Your task to perform on an android device: clear all cookies in the chrome app Image 0: 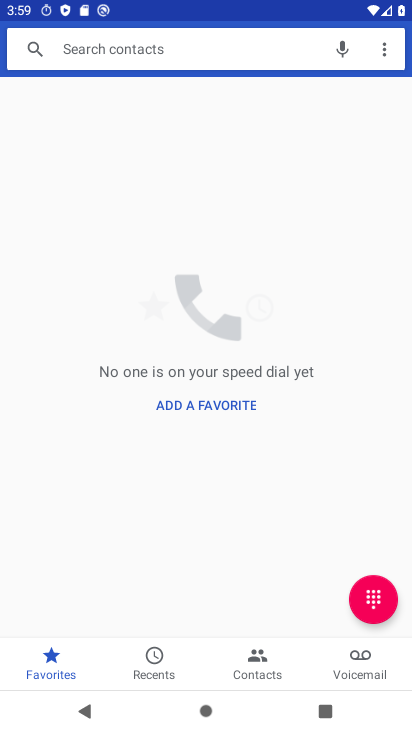
Step 0: press home button
Your task to perform on an android device: clear all cookies in the chrome app Image 1: 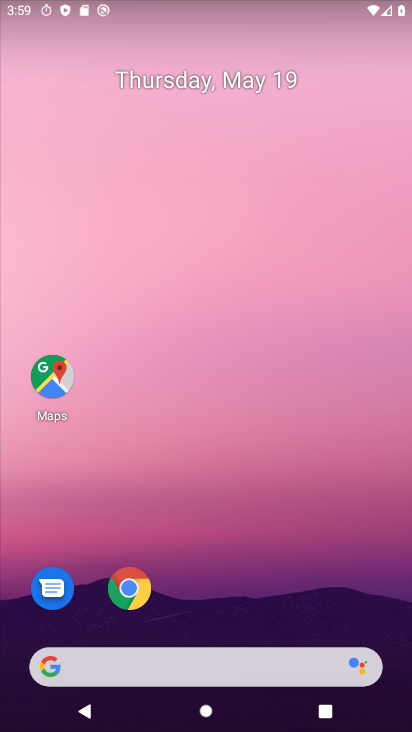
Step 1: click (142, 596)
Your task to perform on an android device: clear all cookies in the chrome app Image 2: 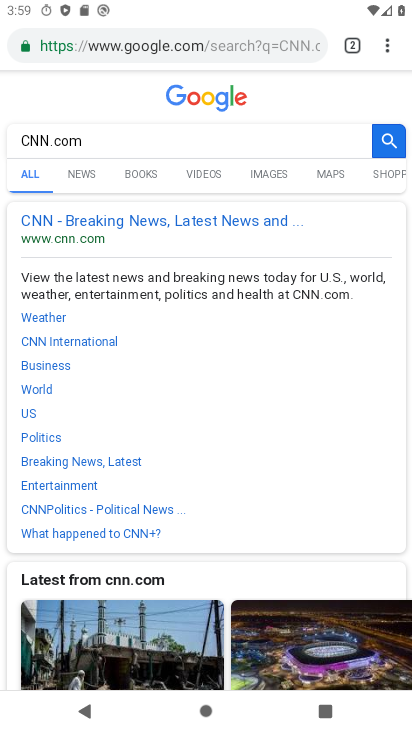
Step 2: click (387, 53)
Your task to perform on an android device: clear all cookies in the chrome app Image 3: 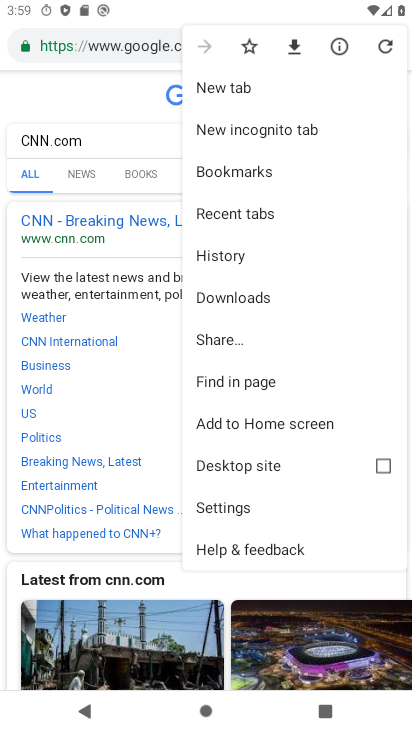
Step 3: click (219, 263)
Your task to perform on an android device: clear all cookies in the chrome app Image 4: 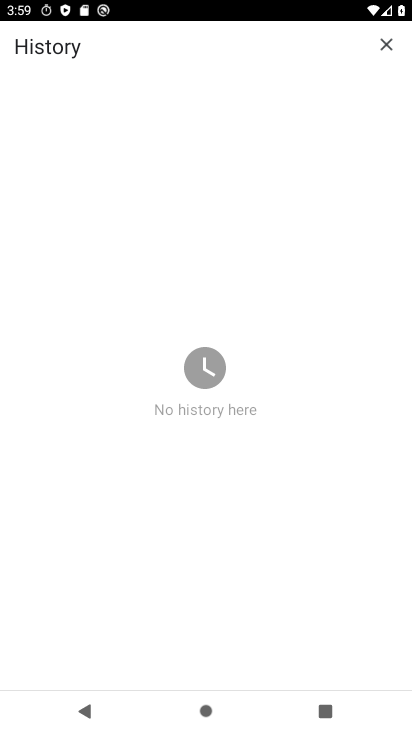
Step 4: task complete